Your task to perform on an android device: change notification settings in the gmail app Image 0: 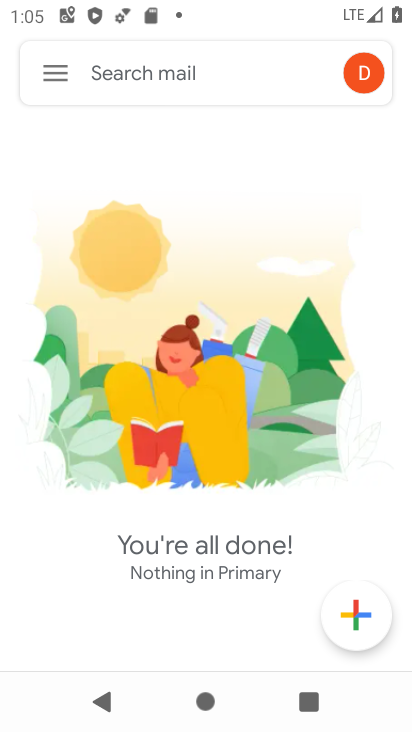
Step 0: press home button
Your task to perform on an android device: change notification settings in the gmail app Image 1: 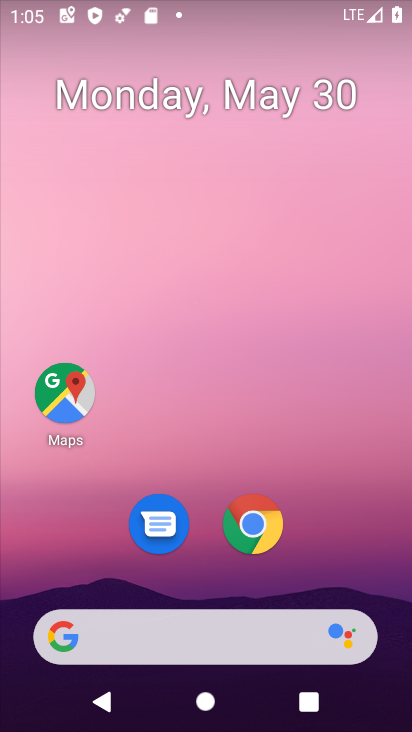
Step 1: drag from (297, 464) to (255, 5)
Your task to perform on an android device: change notification settings in the gmail app Image 2: 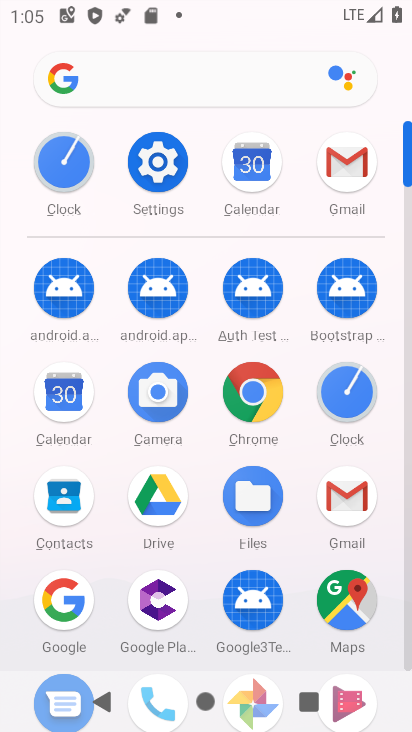
Step 2: click (337, 171)
Your task to perform on an android device: change notification settings in the gmail app Image 3: 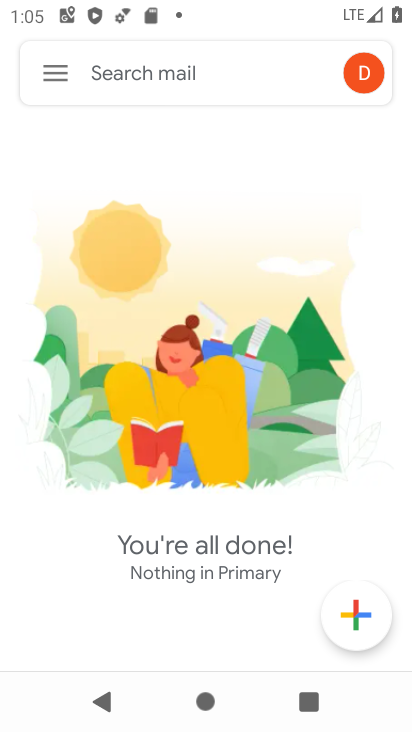
Step 3: click (63, 78)
Your task to perform on an android device: change notification settings in the gmail app Image 4: 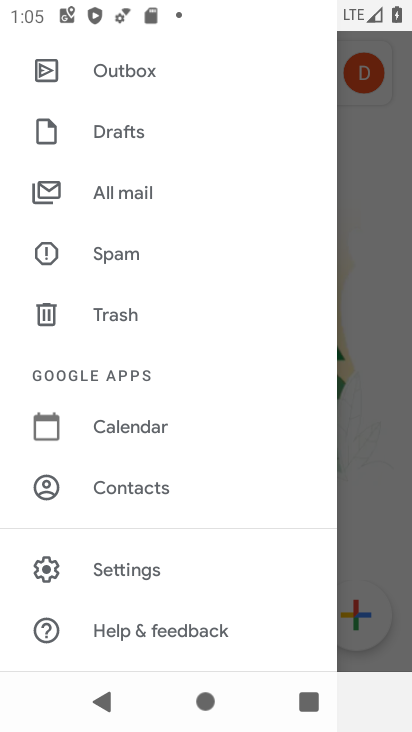
Step 4: click (149, 574)
Your task to perform on an android device: change notification settings in the gmail app Image 5: 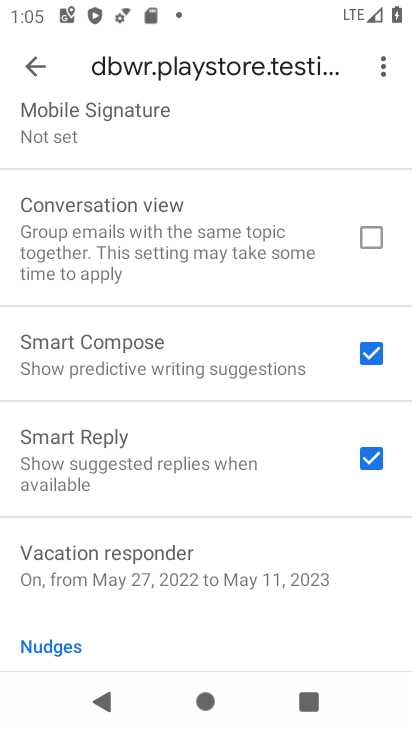
Step 5: drag from (222, 218) to (207, 691)
Your task to perform on an android device: change notification settings in the gmail app Image 6: 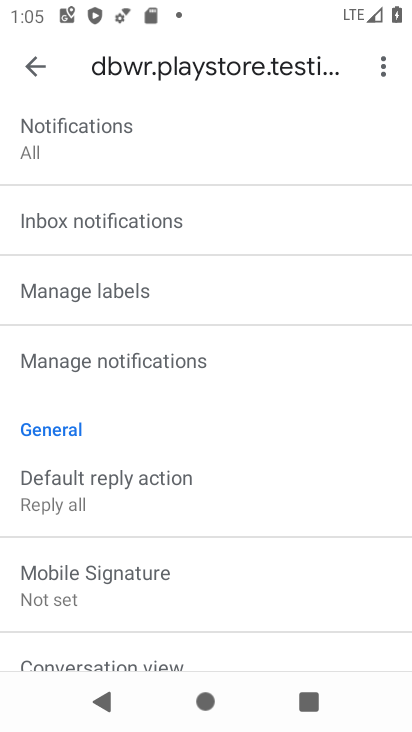
Step 6: click (231, 360)
Your task to perform on an android device: change notification settings in the gmail app Image 7: 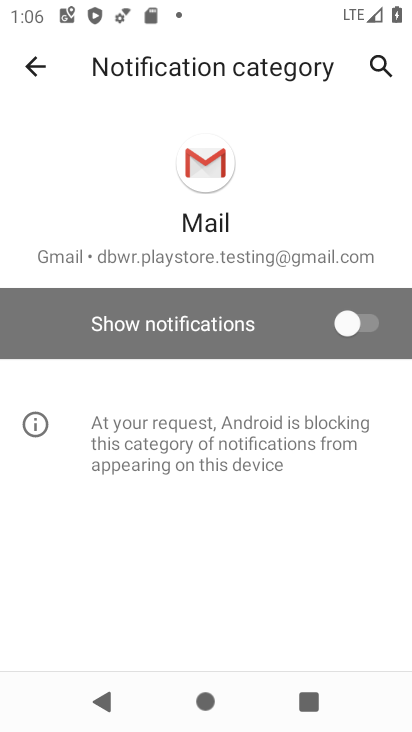
Step 7: click (366, 326)
Your task to perform on an android device: change notification settings in the gmail app Image 8: 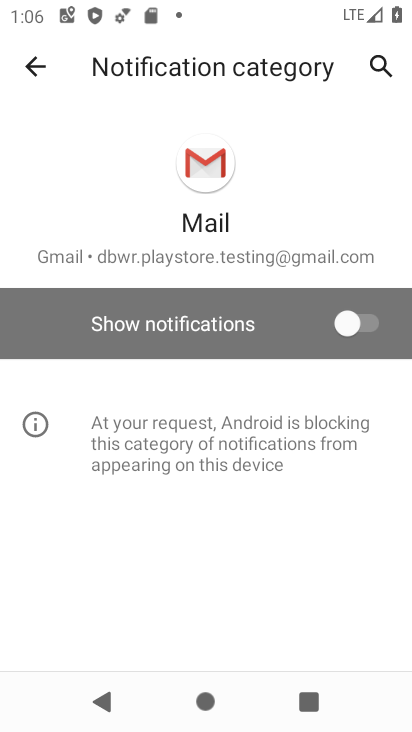
Step 8: click (349, 308)
Your task to perform on an android device: change notification settings in the gmail app Image 9: 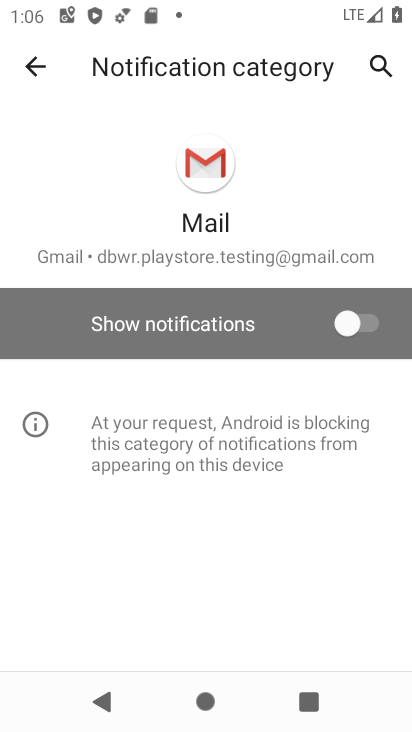
Step 9: click (26, 50)
Your task to perform on an android device: change notification settings in the gmail app Image 10: 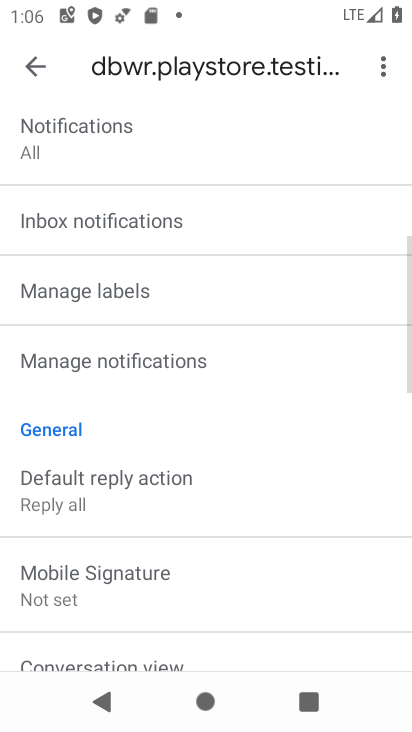
Step 10: click (26, 52)
Your task to perform on an android device: change notification settings in the gmail app Image 11: 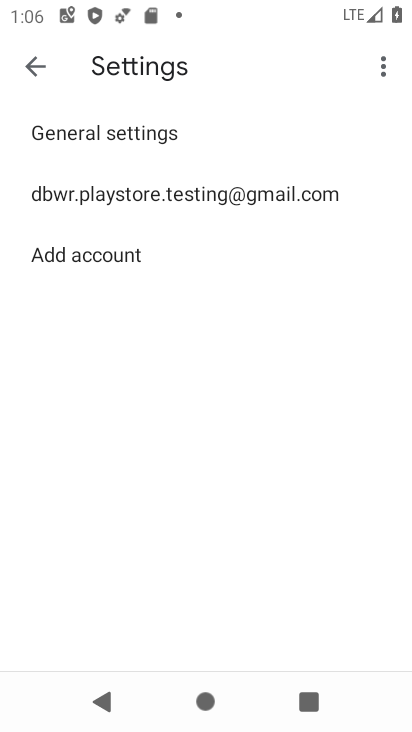
Step 11: click (89, 127)
Your task to perform on an android device: change notification settings in the gmail app Image 12: 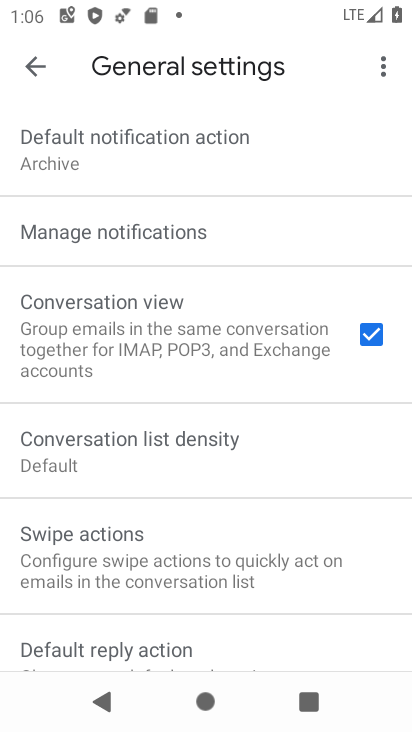
Step 12: click (261, 227)
Your task to perform on an android device: change notification settings in the gmail app Image 13: 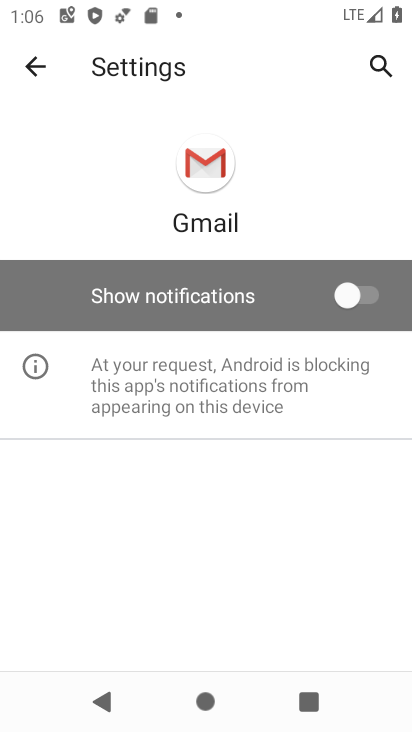
Step 13: click (349, 293)
Your task to perform on an android device: change notification settings in the gmail app Image 14: 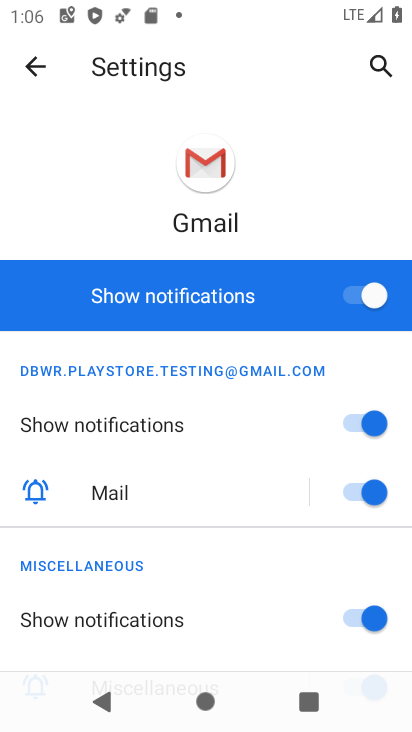
Step 14: task complete